Your task to perform on an android device: Go to Yahoo.com Image 0: 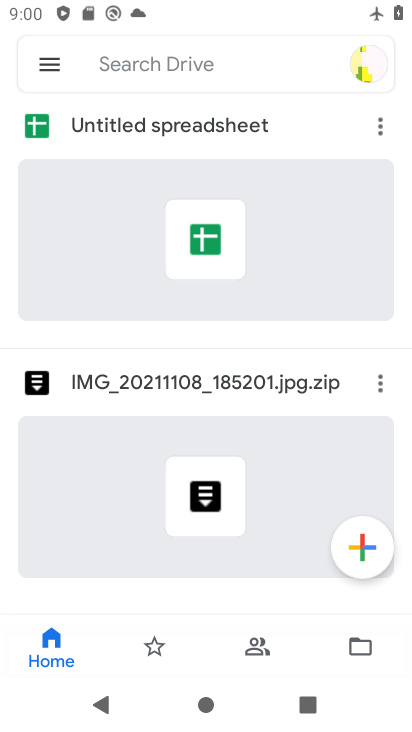
Step 0: press home button
Your task to perform on an android device: Go to Yahoo.com Image 1: 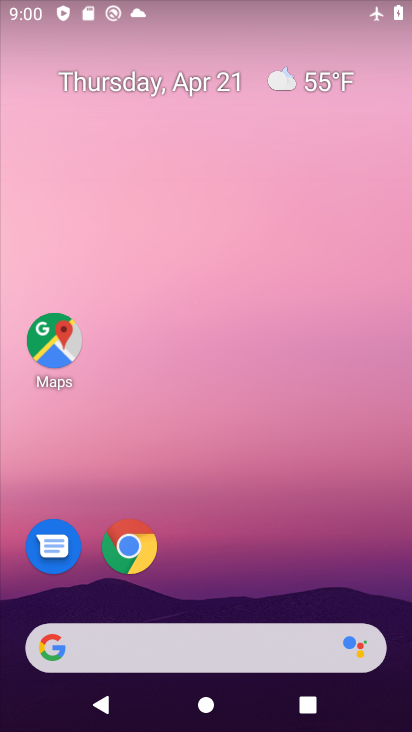
Step 1: click (135, 516)
Your task to perform on an android device: Go to Yahoo.com Image 2: 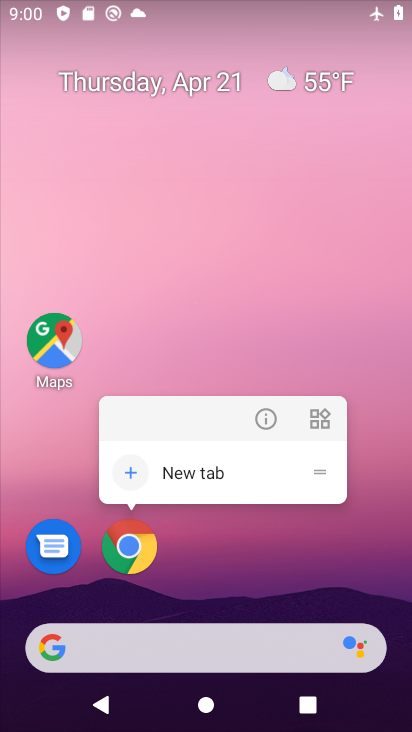
Step 2: click (127, 545)
Your task to perform on an android device: Go to Yahoo.com Image 3: 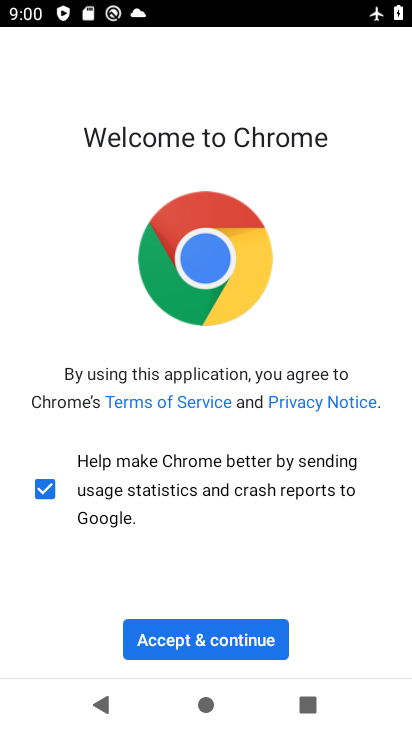
Step 3: click (202, 625)
Your task to perform on an android device: Go to Yahoo.com Image 4: 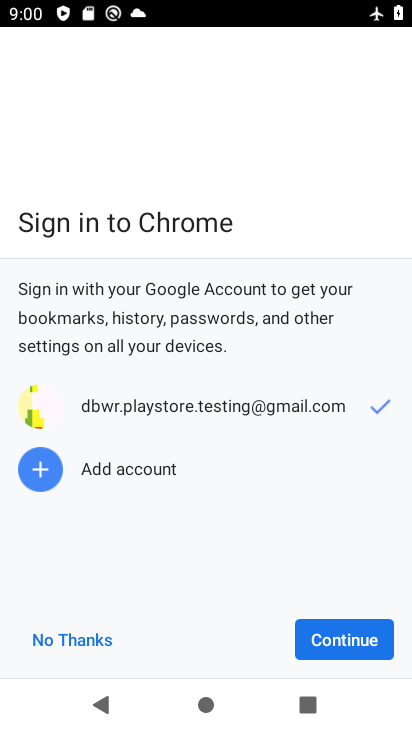
Step 4: click (302, 627)
Your task to perform on an android device: Go to Yahoo.com Image 5: 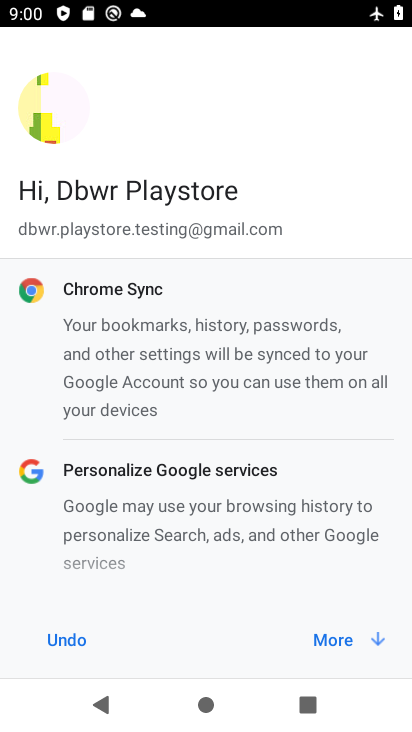
Step 5: click (328, 621)
Your task to perform on an android device: Go to Yahoo.com Image 6: 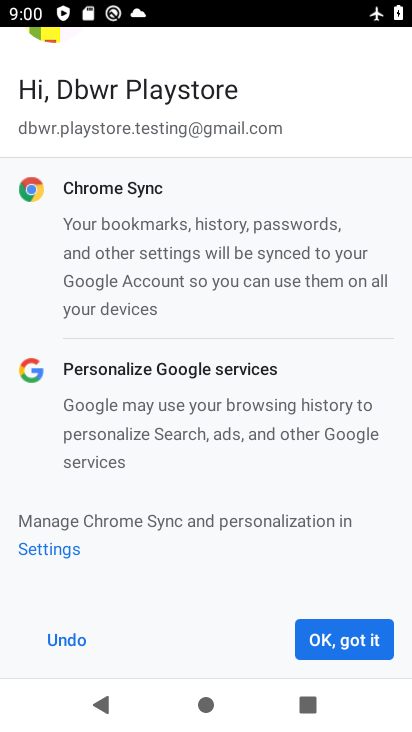
Step 6: click (337, 611)
Your task to perform on an android device: Go to Yahoo.com Image 7: 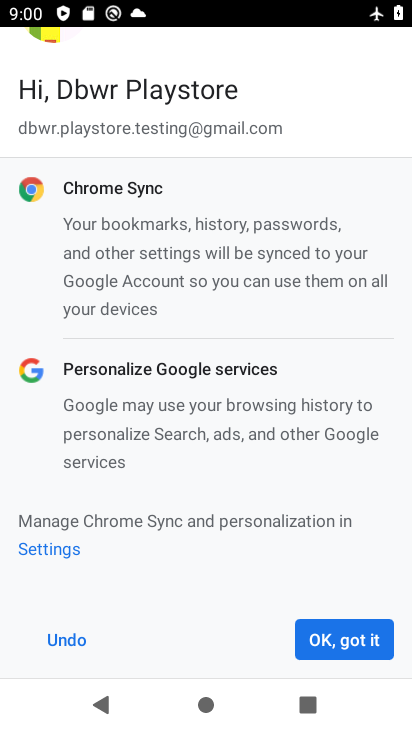
Step 7: click (340, 637)
Your task to perform on an android device: Go to Yahoo.com Image 8: 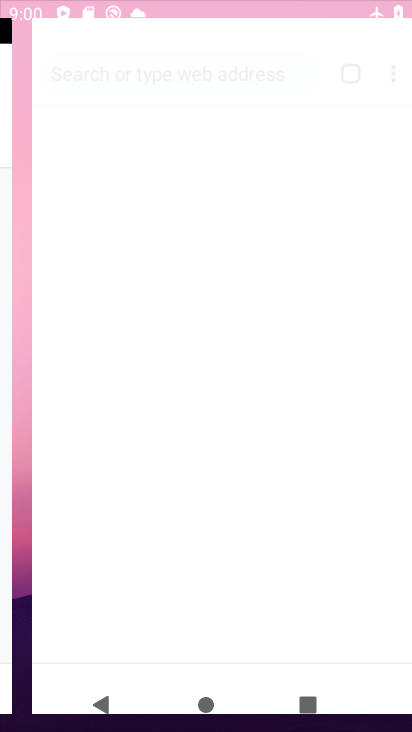
Step 8: click (349, 637)
Your task to perform on an android device: Go to Yahoo.com Image 9: 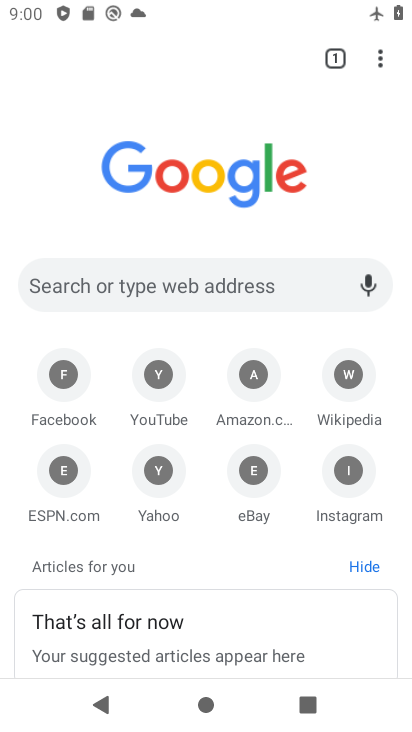
Step 9: drag from (340, 637) to (373, 566)
Your task to perform on an android device: Go to Yahoo.com Image 10: 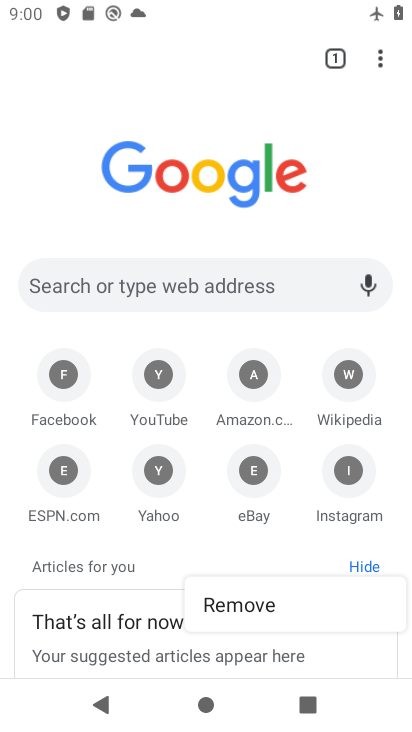
Step 10: click (142, 470)
Your task to perform on an android device: Go to Yahoo.com Image 11: 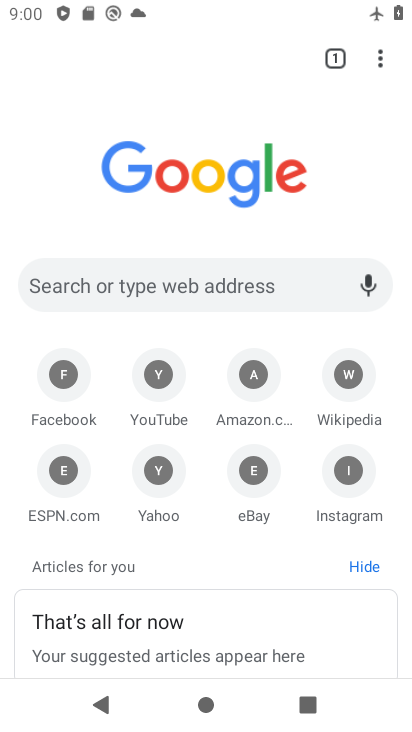
Step 11: click (142, 470)
Your task to perform on an android device: Go to Yahoo.com Image 12: 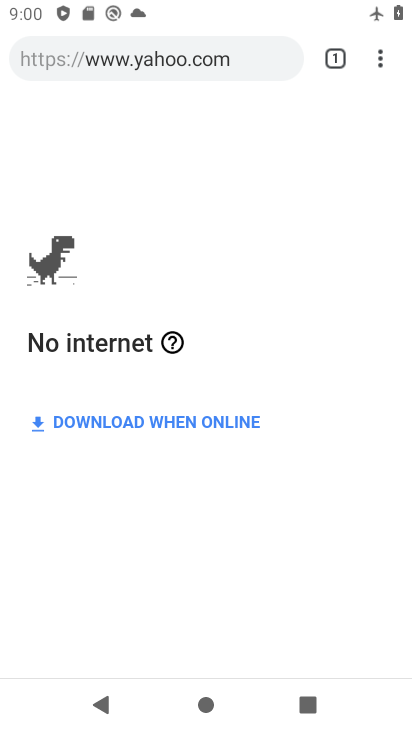
Step 12: task complete